Your task to perform on an android device: move an email to a new category in the gmail app Image 0: 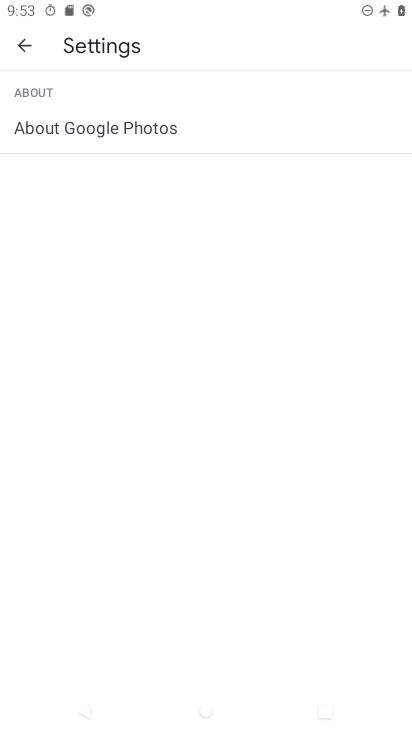
Step 0: press home button
Your task to perform on an android device: move an email to a new category in the gmail app Image 1: 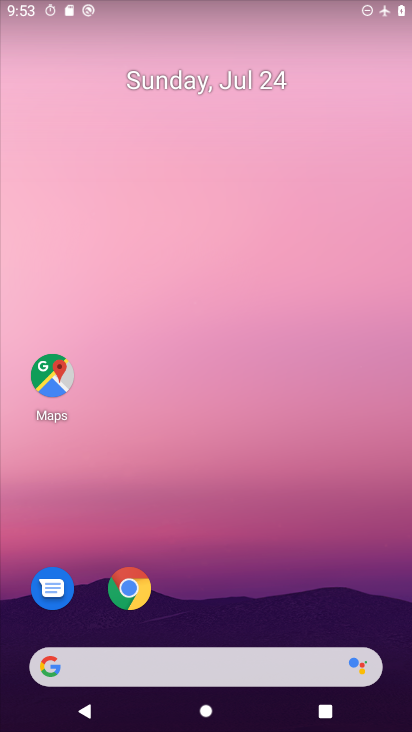
Step 1: drag from (226, 633) to (219, 11)
Your task to perform on an android device: move an email to a new category in the gmail app Image 2: 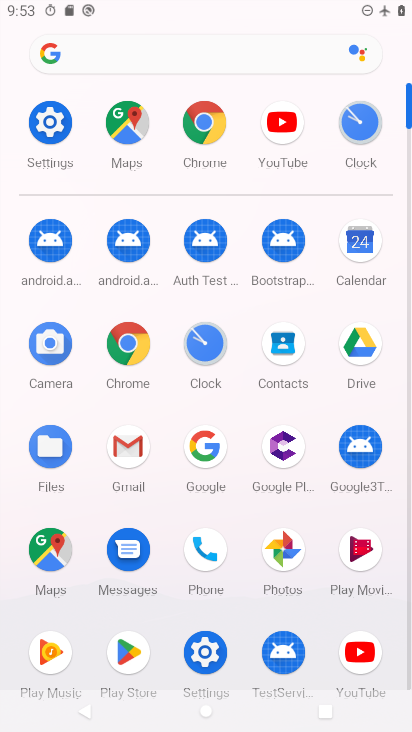
Step 2: click (132, 451)
Your task to perform on an android device: move an email to a new category in the gmail app Image 3: 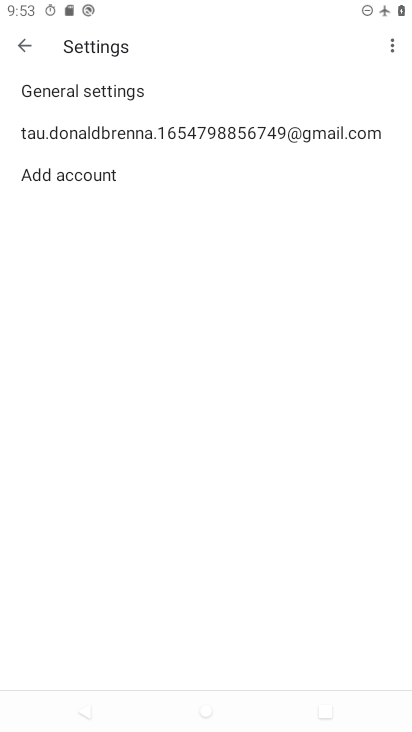
Step 3: click (26, 49)
Your task to perform on an android device: move an email to a new category in the gmail app Image 4: 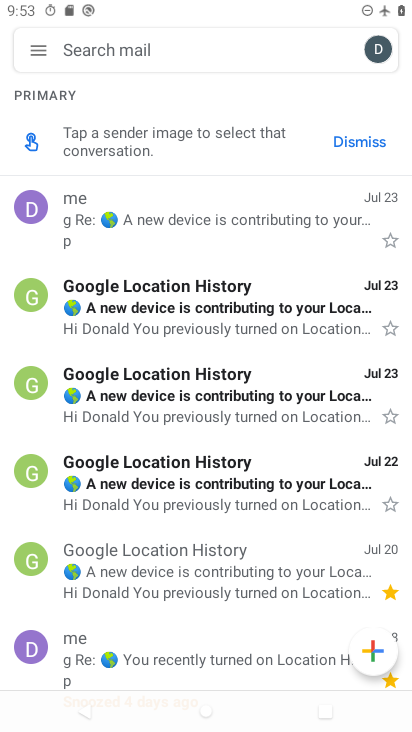
Step 4: click (217, 221)
Your task to perform on an android device: move an email to a new category in the gmail app Image 5: 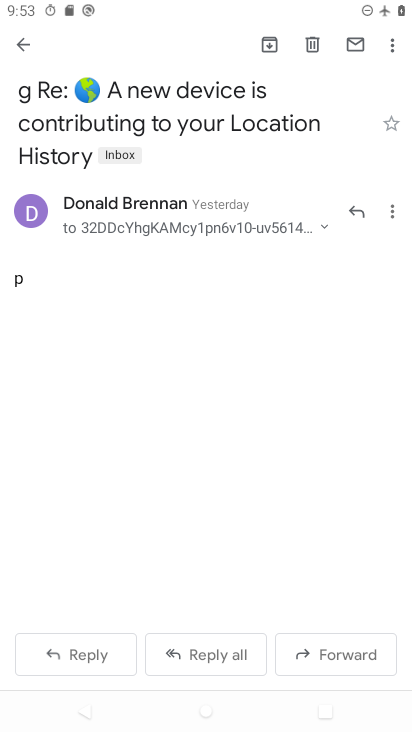
Step 5: click (386, 45)
Your task to perform on an android device: move an email to a new category in the gmail app Image 6: 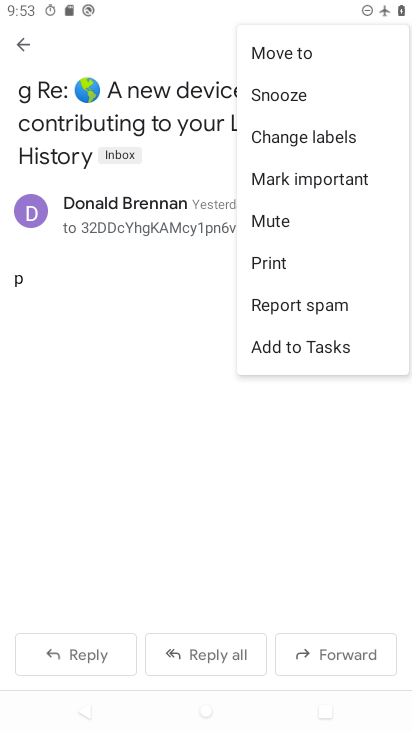
Step 6: click (274, 182)
Your task to perform on an android device: move an email to a new category in the gmail app Image 7: 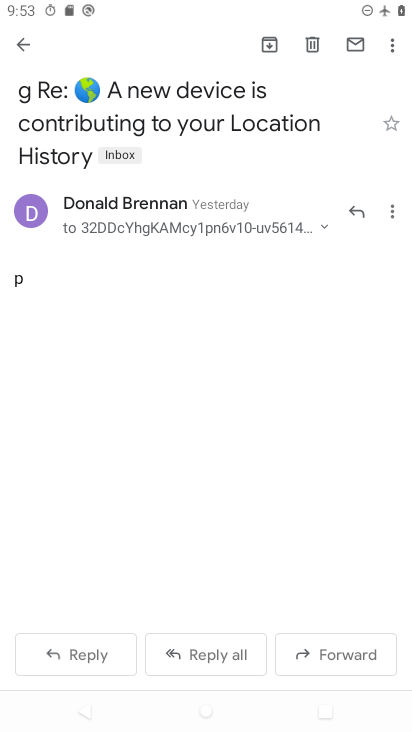
Step 7: task complete